Your task to perform on an android device: change the upload size in google photos Image 0: 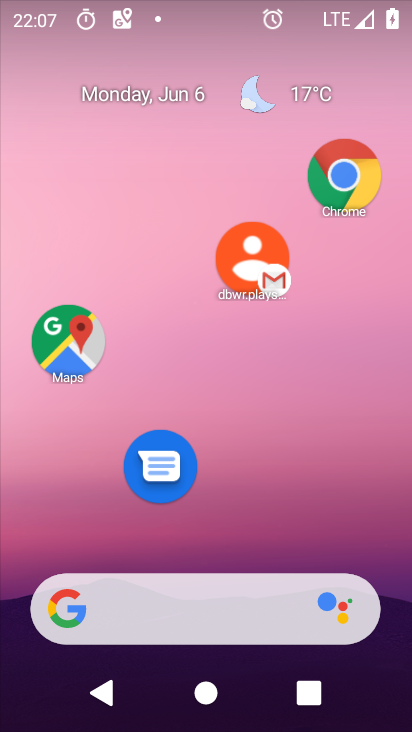
Step 0: click (368, 6)
Your task to perform on an android device: change the upload size in google photos Image 1: 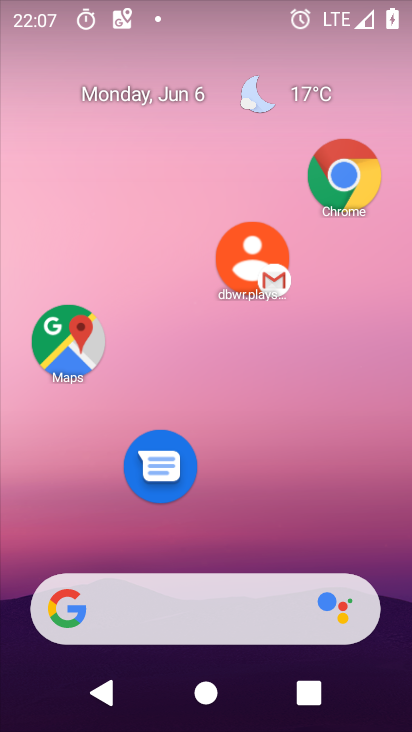
Step 1: drag from (279, 275) to (117, 29)
Your task to perform on an android device: change the upload size in google photos Image 2: 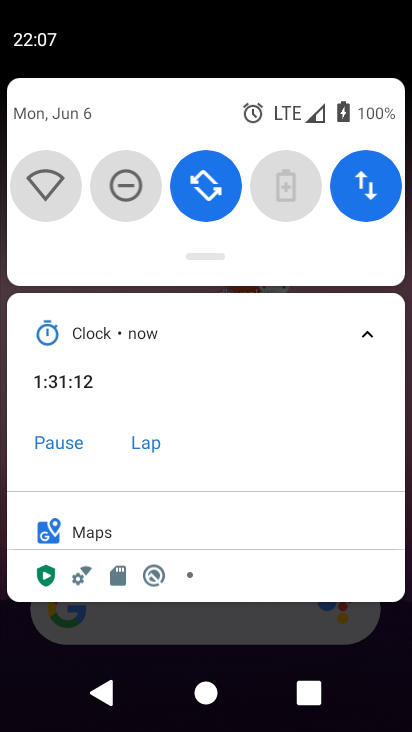
Step 2: press home button
Your task to perform on an android device: change the upload size in google photos Image 3: 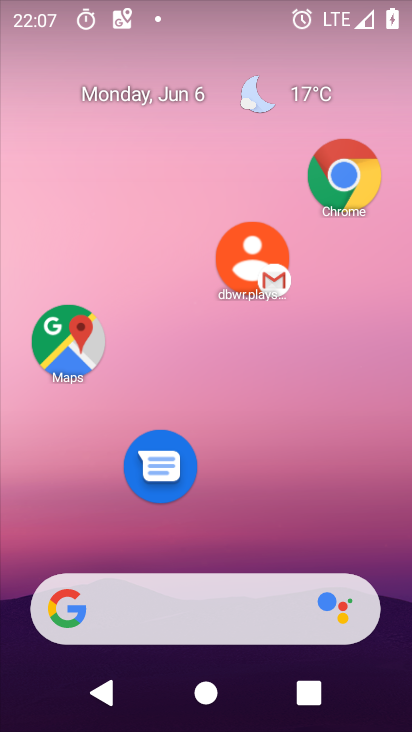
Step 3: drag from (206, 549) to (220, 64)
Your task to perform on an android device: change the upload size in google photos Image 4: 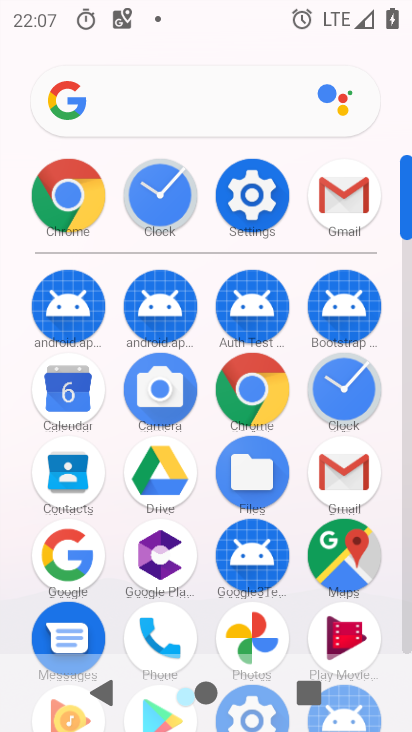
Step 4: click (247, 615)
Your task to perform on an android device: change the upload size in google photos Image 5: 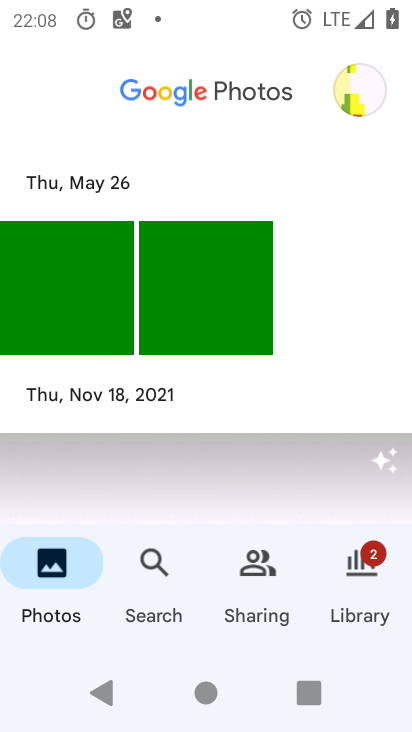
Step 5: click (384, 121)
Your task to perform on an android device: change the upload size in google photos Image 6: 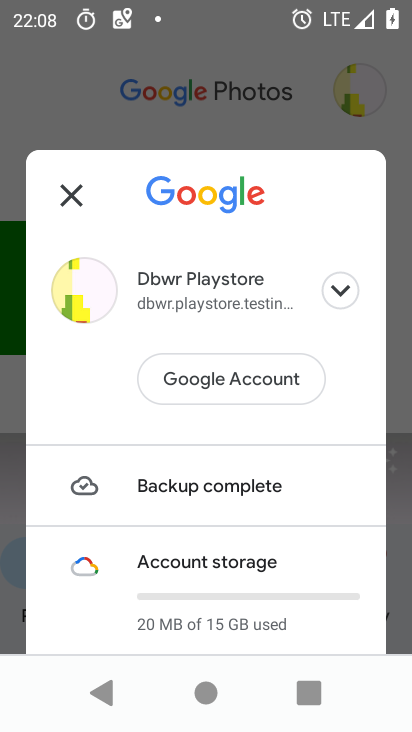
Step 6: drag from (153, 535) to (217, 222)
Your task to perform on an android device: change the upload size in google photos Image 7: 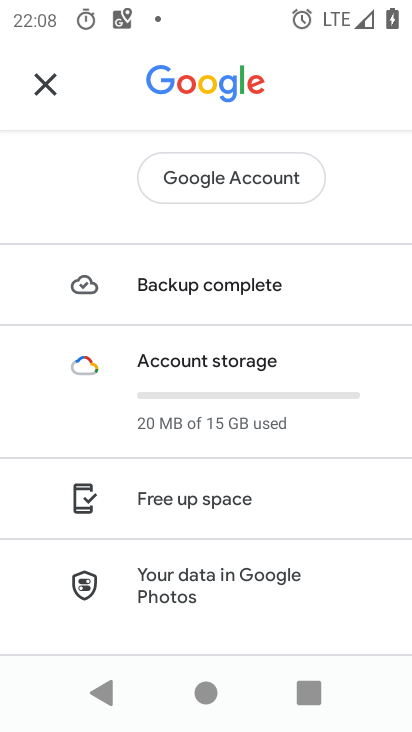
Step 7: drag from (219, 509) to (311, 88)
Your task to perform on an android device: change the upload size in google photos Image 8: 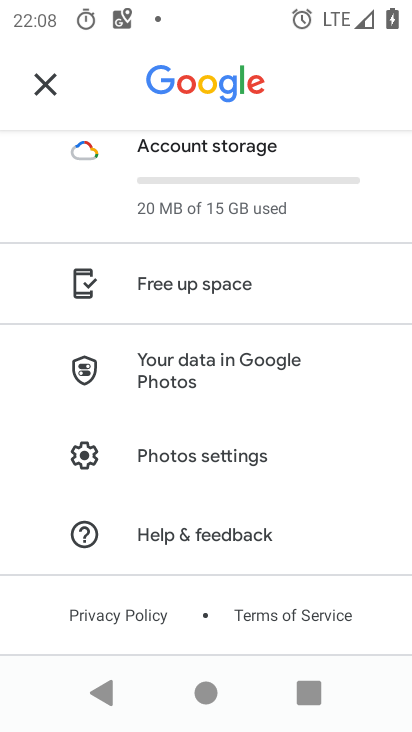
Step 8: click (202, 452)
Your task to perform on an android device: change the upload size in google photos Image 9: 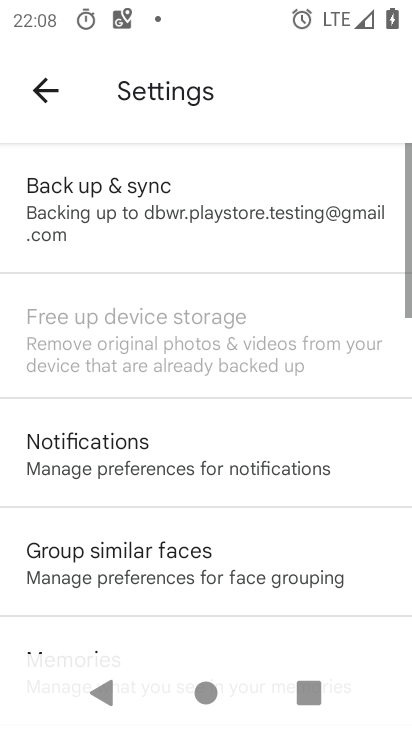
Step 9: drag from (210, 534) to (314, 53)
Your task to perform on an android device: change the upload size in google photos Image 10: 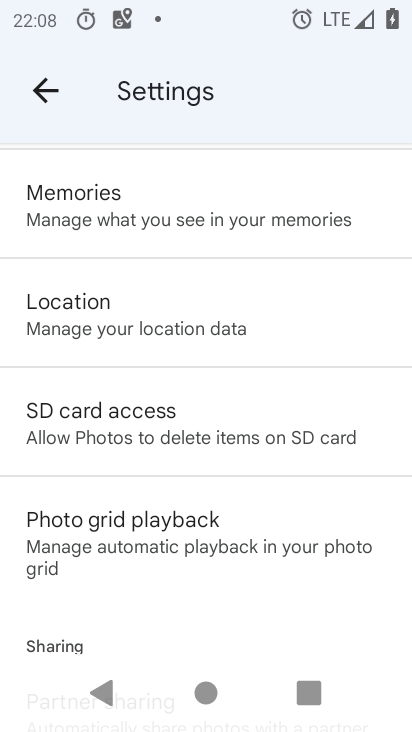
Step 10: drag from (148, 269) to (200, 603)
Your task to perform on an android device: change the upload size in google photos Image 11: 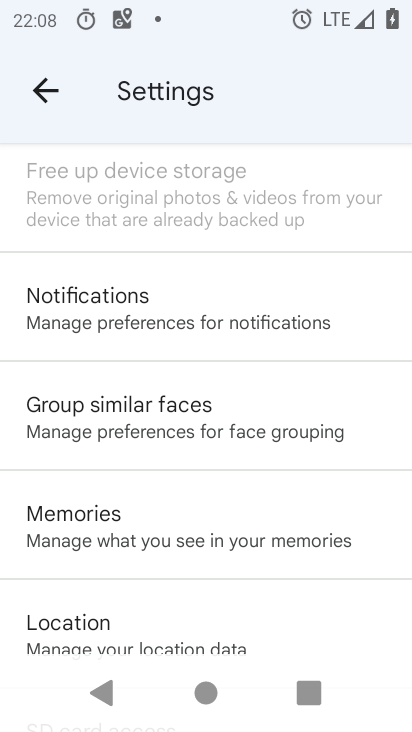
Step 11: drag from (122, 338) to (330, 730)
Your task to perform on an android device: change the upload size in google photos Image 12: 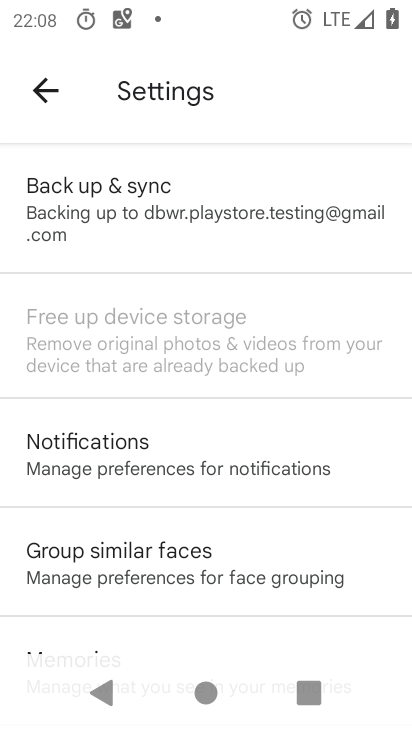
Step 12: click (165, 221)
Your task to perform on an android device: change the upload size in google photos Image 13: 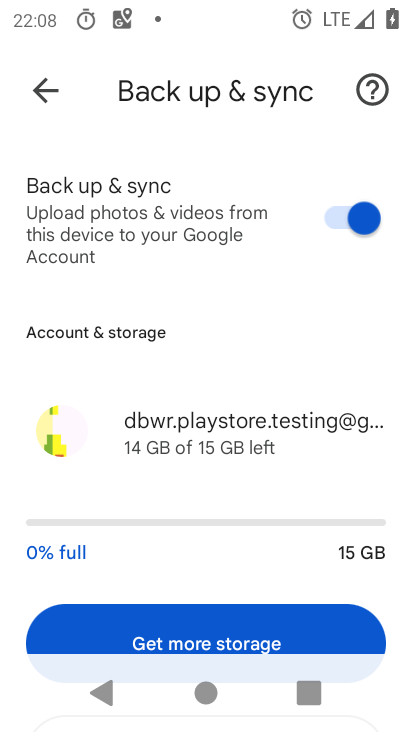
Step 13: drag from (163, 564) to (247, 284)
Your task to perform on an android device: change the upload size in google photos Image 14: 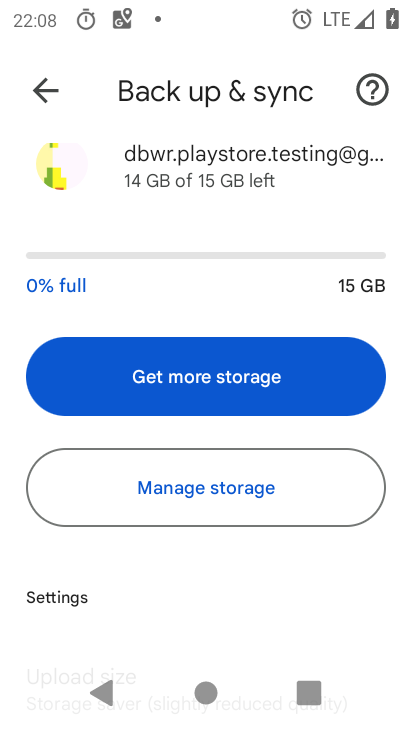
Step 14: drag from (151, 285) to (317, 729)
Your task to perform on an android device: change the upload size in google photos Image 15: 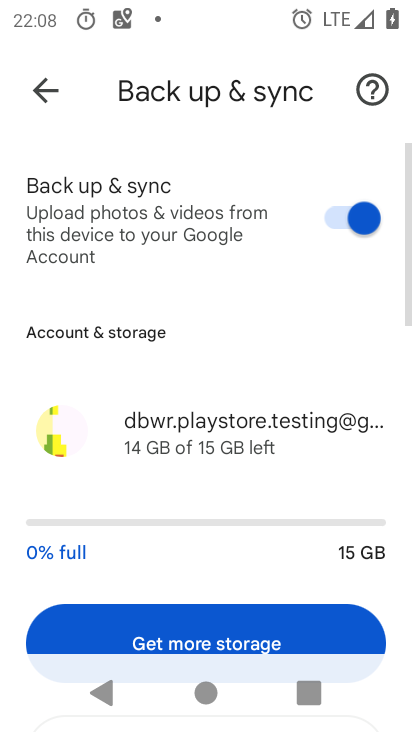
Step 15: drag from (260, 615) to (357, 128)
Your task to perform on an android device: change the upload size in google photos Image 16: 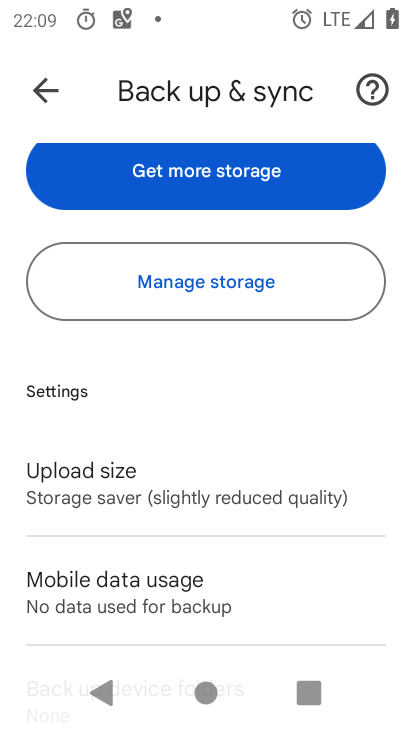
Step 16: click (184, 488)
Your task to perform on an android device: change the upload size in google photos Image 17: 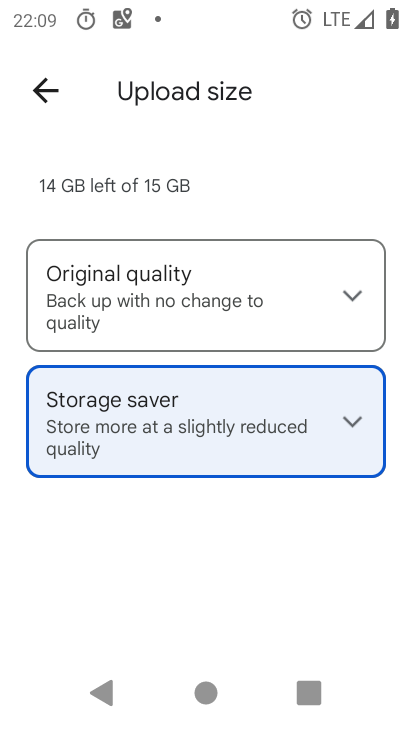
Step 17: click (234, 301)
Your task to perform on an android device: change the upload size in google photos Image 18: 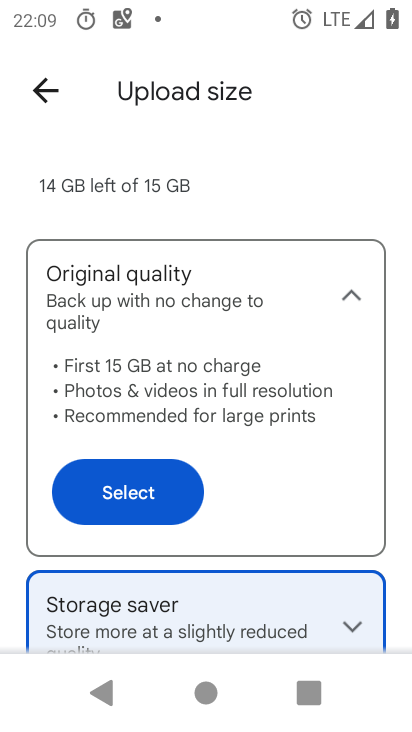
Step 18: click (123, 486)
Your task to perform on an android device: change the upload size in google photos Image 19: 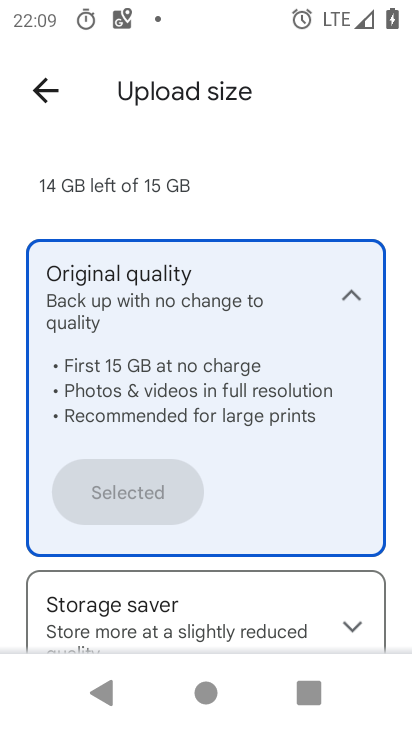
Step 19: click (163, 493)
Your task to perform on an android device: change the upload size in google photos Image 20: 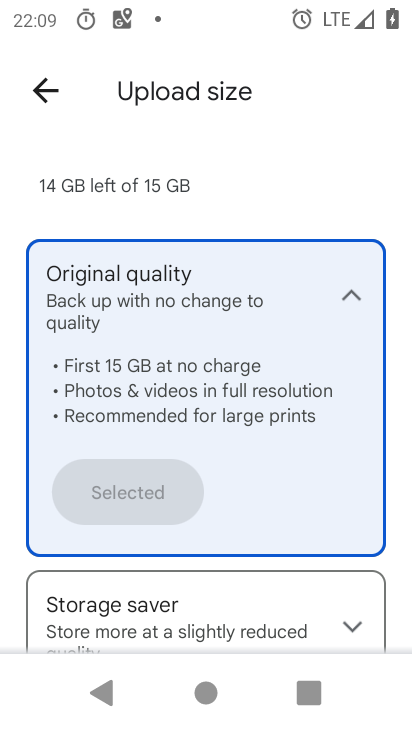
Step 20: drag from (184, 475) to (324, 52)
Your task to perform on an android device: change the upload size in google photos Image 21: 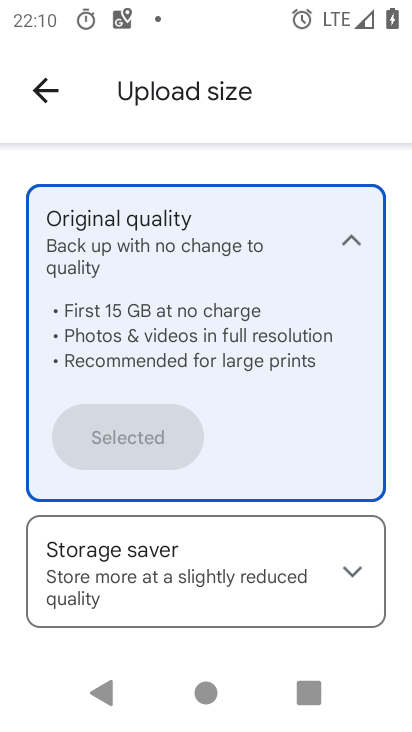
Step 21: drag from (83, 370) to (157, 428)
Your task to perform on an android device: change the upload size in google photos Image 22: 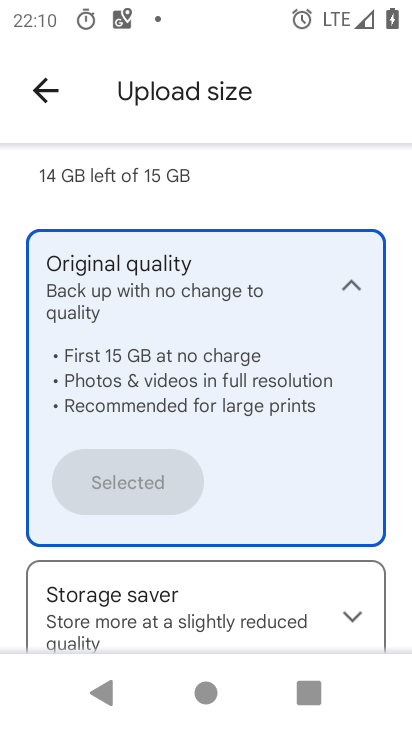
Step 22: click (331, 374)
Your task to perform on an android device: change the upload size in google photos Image 23: 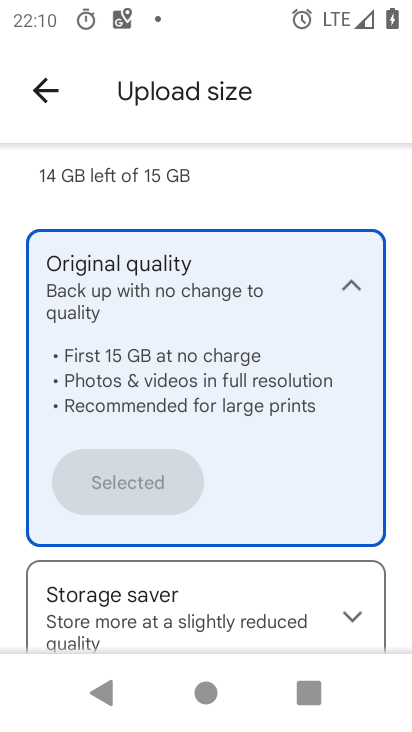
Step 23: task complete